Your task to perform on an android device: Open settings Image 0: 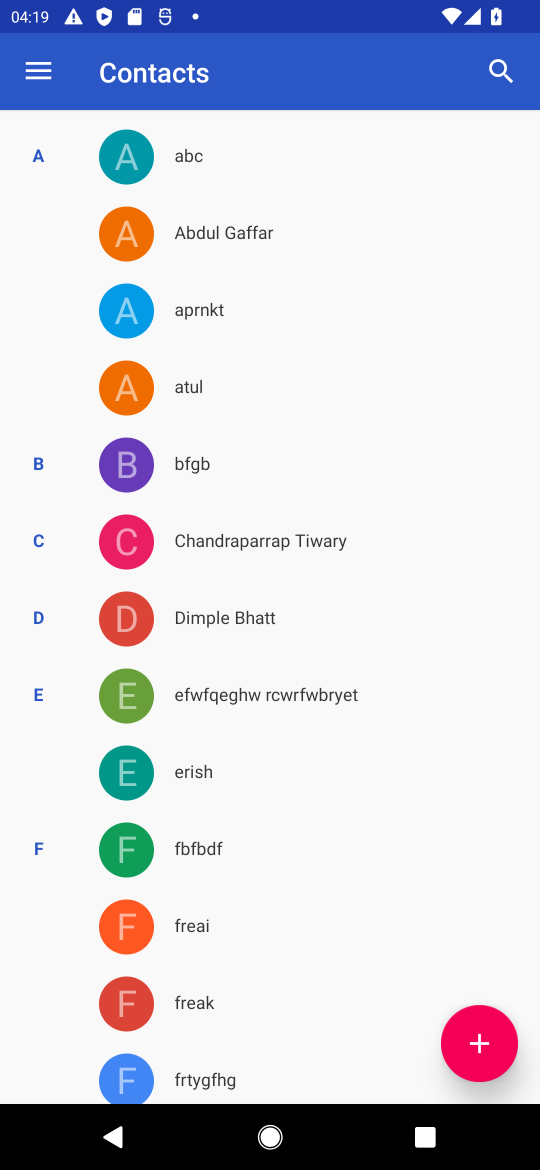
Step 0: press home button
Your task to perform on an android device: Open settings Image 1: 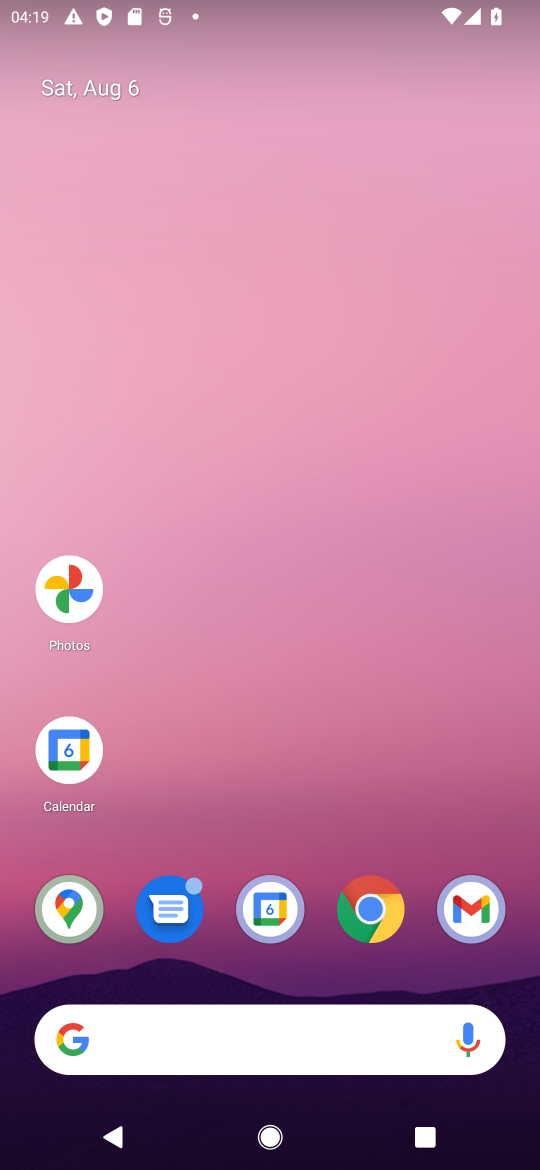
Step 1: drag from (371, 781) to (293, 196)
Your task to perform on an android device: Open settings Image 2: 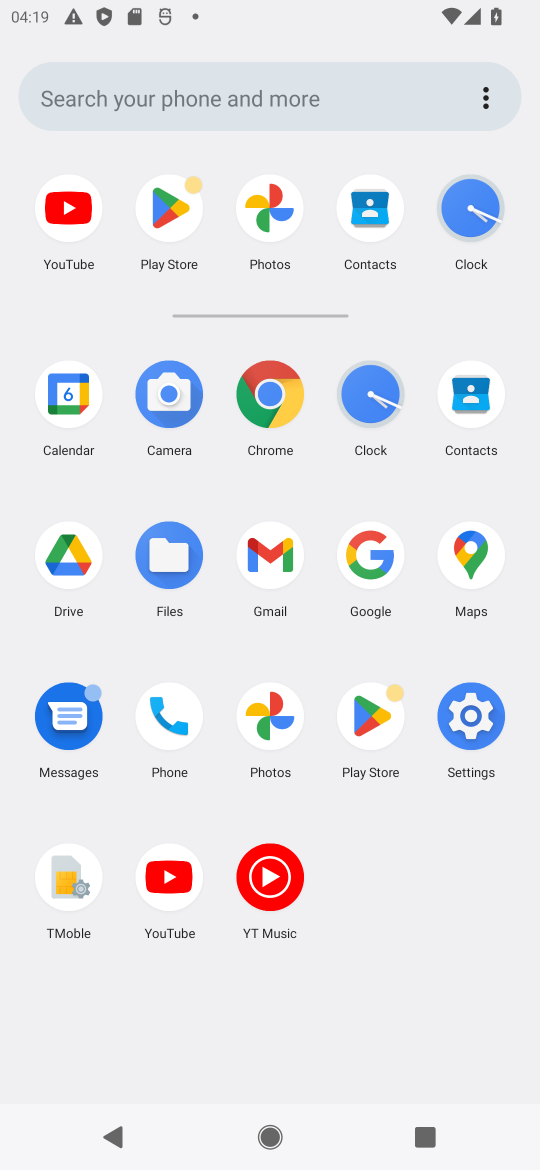
Step 2: click (474, 715)
Your task to perform on an android device: Open settings Image 3: 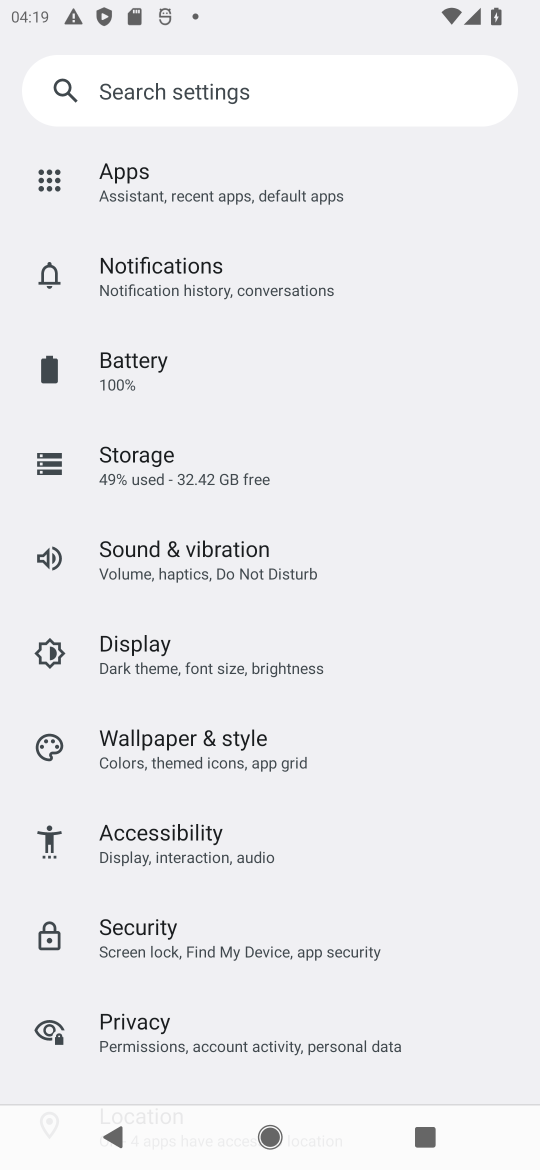
Step 3: task complete